Your task to perform on an android device: add a contact in the contacts app Image 0: 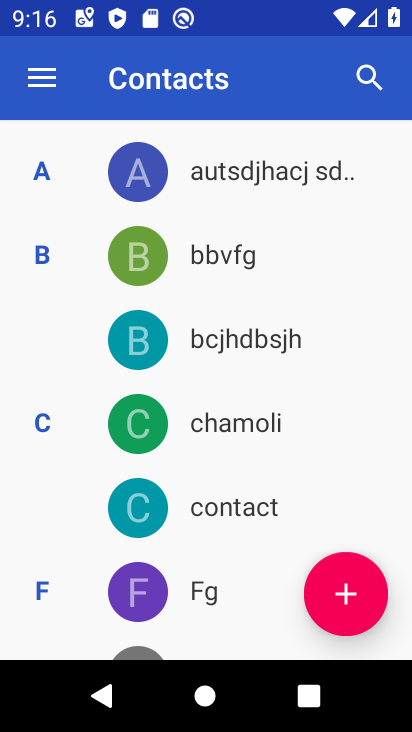
Step 0: click (330, 595)
Your task to perform on an android device: add a contact in the contacts app Image 1: 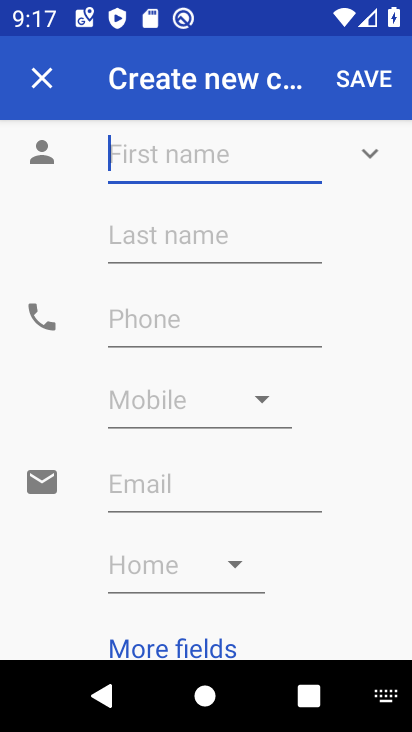
Step 1: type "hvhv"
Your task to perform on an android device: add a contact in the contacts app Image 2: 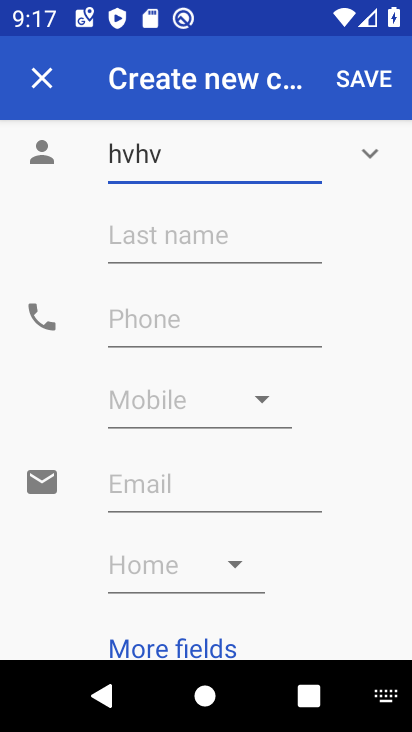
Step 2: click (184, 322)
Your task to perform on an android device: add a contact in the contacts app Image 3: 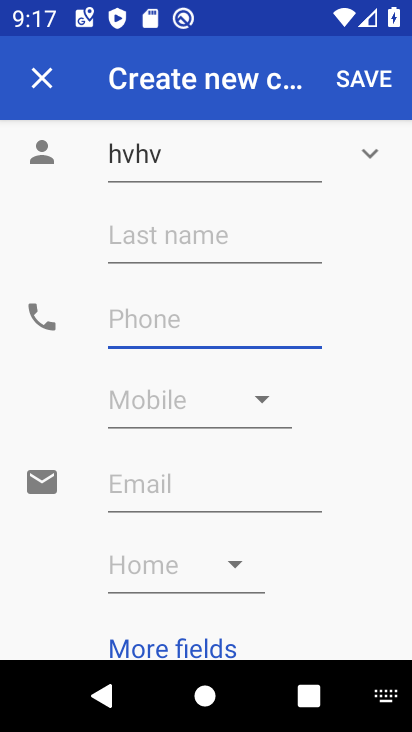
Step 3: type "8787"
Your task to perform on an android device: add a contact in the contacts app Image 4: 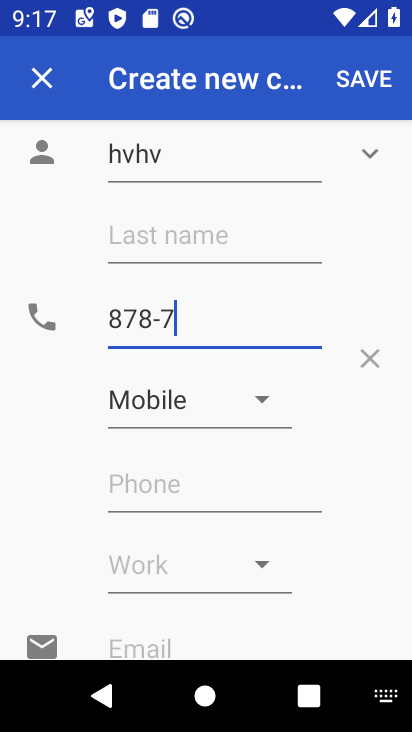
Step 4: click (356, 89)
Your task to perform on an android device: add a contact in the contacts app Image 5: 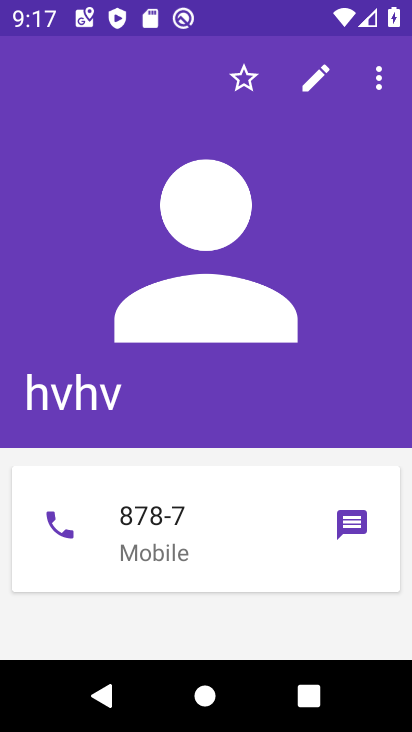
Step 5: task complete